Your task to perform on an android device: Go to display settings Image 0: 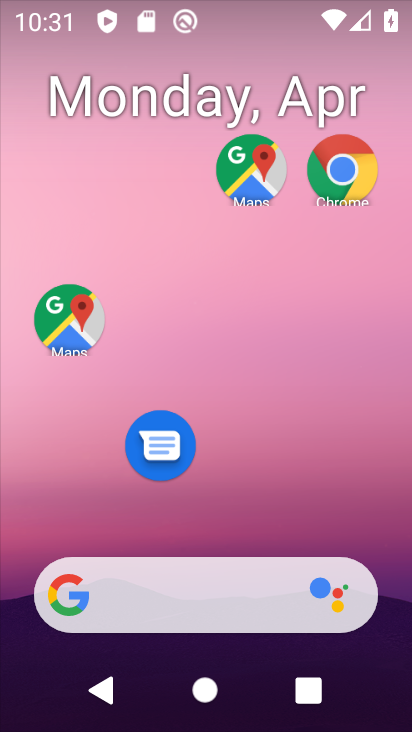
Step 0: drag from (259, 512) to (304, 1)
Your task to perform on an android device: Go to display settings Image 1: 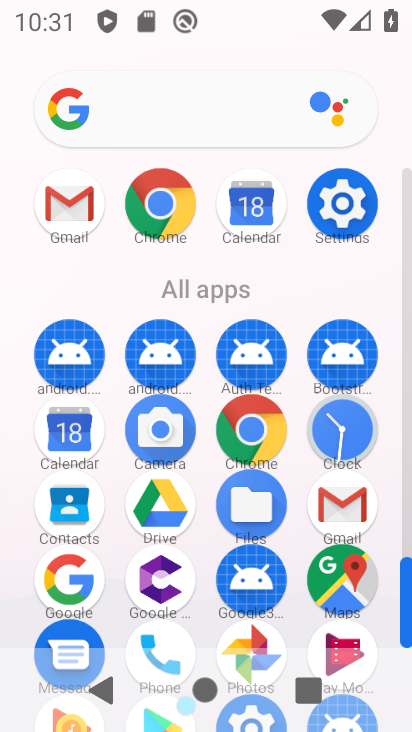
Step 1: click (328, 205)
Your task to perform on an android device: Go to display settings Image 2: 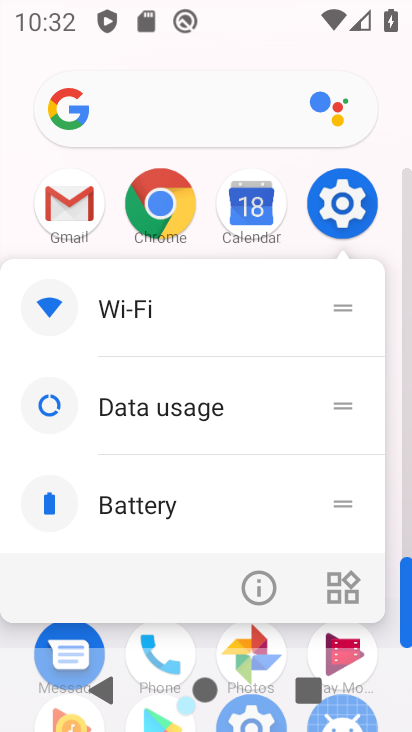
Step 2: click (330, 206)
Your task to perform on an android device: Go to display settings Image 3: 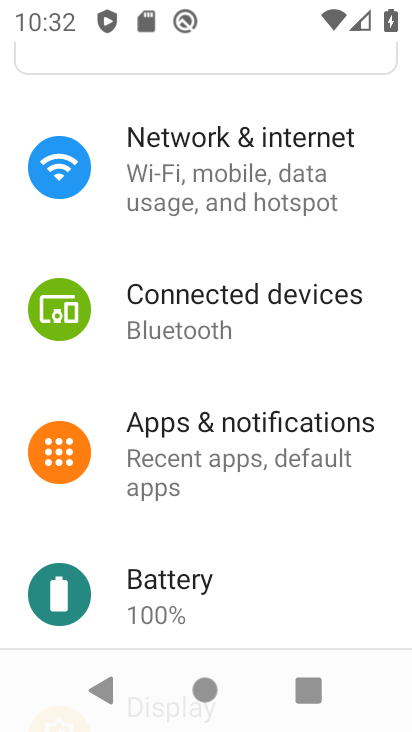
Step 3: drag from (260, 401) to (282, 68)
Your task to perform on an android device: Go to display settings Image 4: 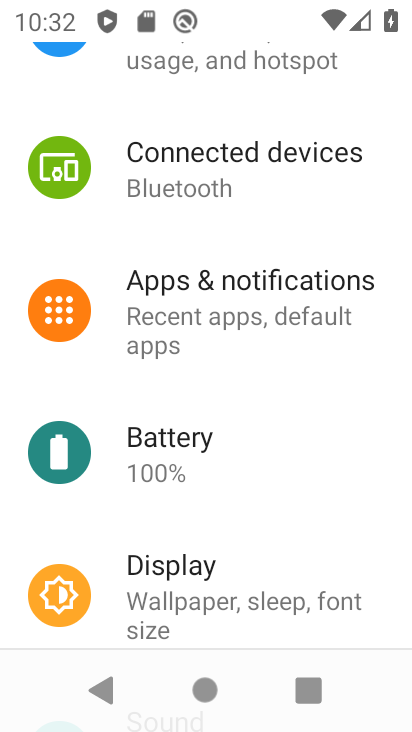
Step 4: click (181, 556)
Your task to perform on an android device: Go to display settings Image 5: 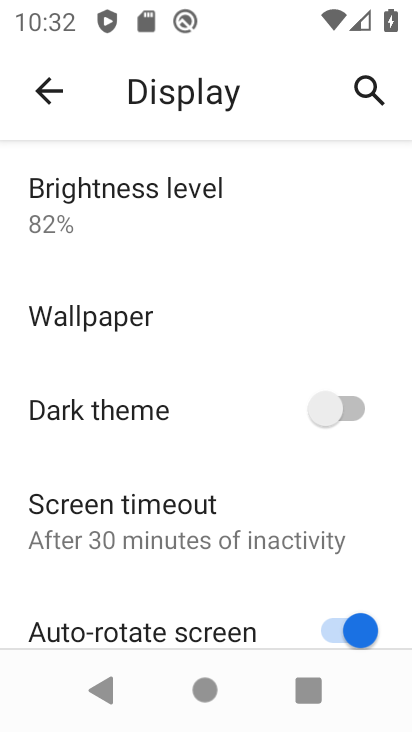
Step 5: task complete